Your task to perform on an android device: Check the news Image 0: 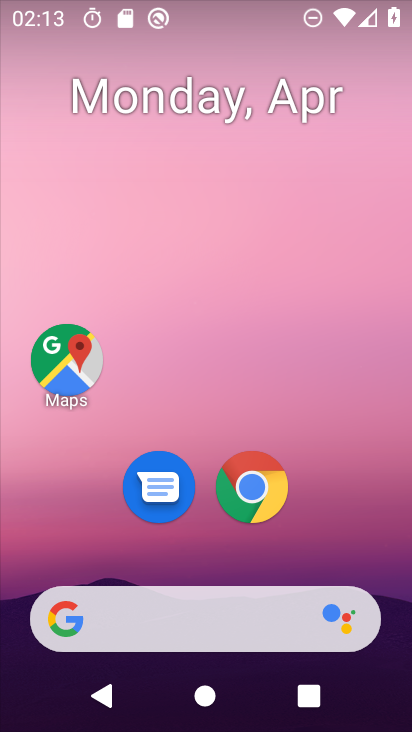
Step 0: drag from (286, 653) to (300, 149)
Your task to perform on an android device: Check the news Image 1: 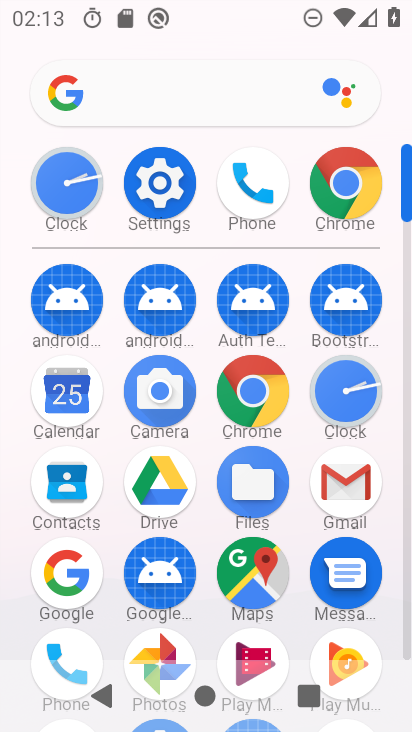
Step 1: click (190, 103)
Your task to perform on an android device: Check the news Image 2: 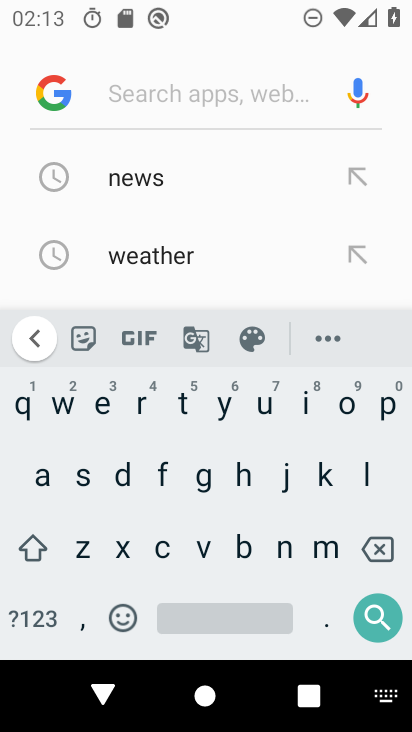
Step 2: click (142, 177)
Your task to perform on an android device: Check the news Image 3: 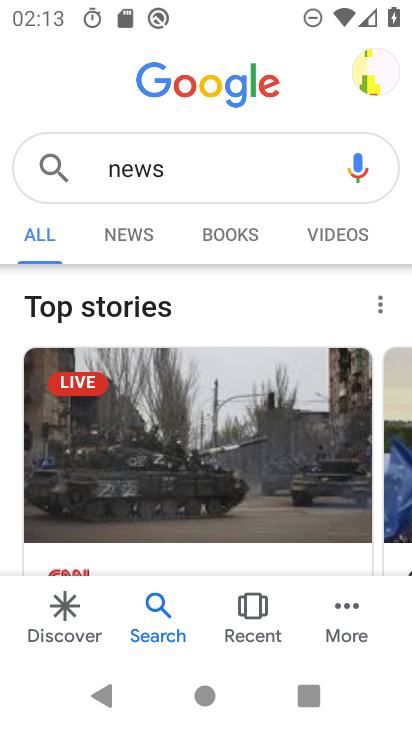
Step 3: task complete